Your task to perform on an android device: Open the Play Movies app and select the watchlist tab. Image 0: 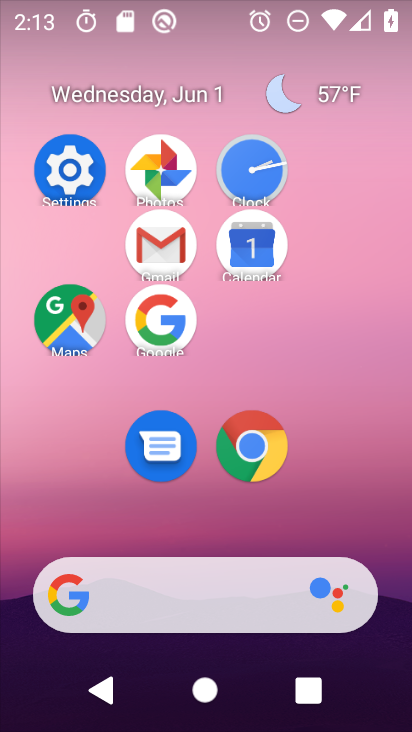
Step 0: click (152, 266)
Your task to perform on an android device: Open the Play Movies app and select the watchlist tab. Image 1: 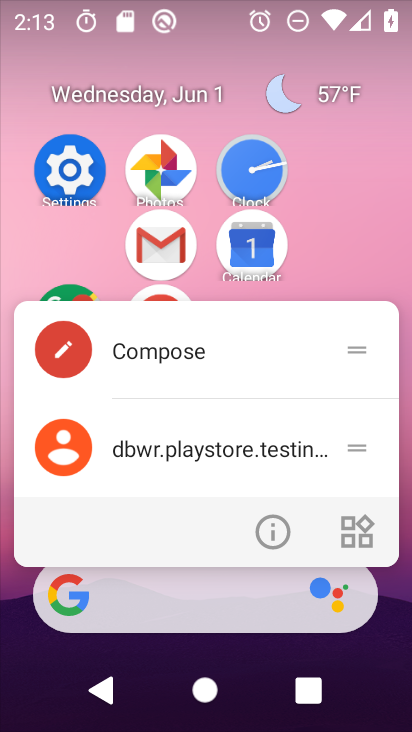
Step 1: click (394, 192)
Your task to perform on an android device: Open the Play Movies app and select the watchlist tab. Image 2: 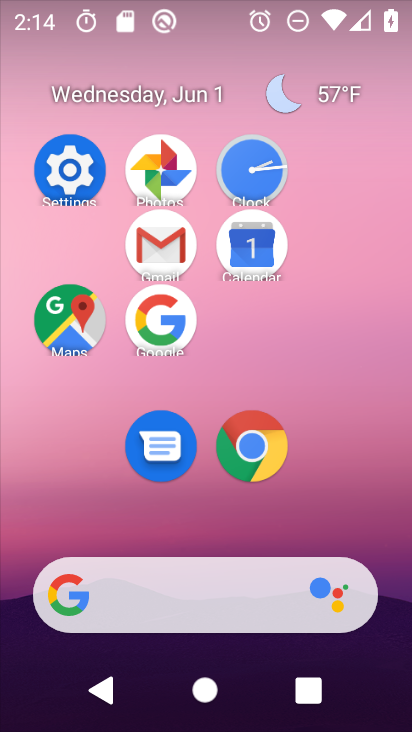
Step 2: drag from (349, 510) to (344, 132)
Your task to perform on an android device: Open the Play Movies app and select the watchlist tab. Image 3: 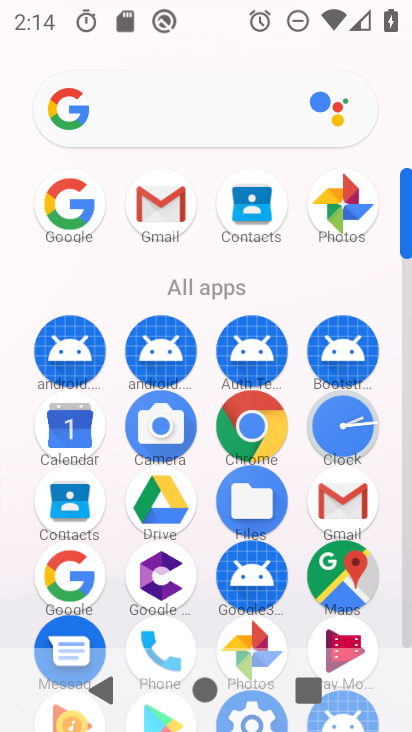
Step 3: drag from (324, 575) to (288, 171)
Your task to perform on an android device: Open the Play Movies app and select the watchlist tab. Image 4: 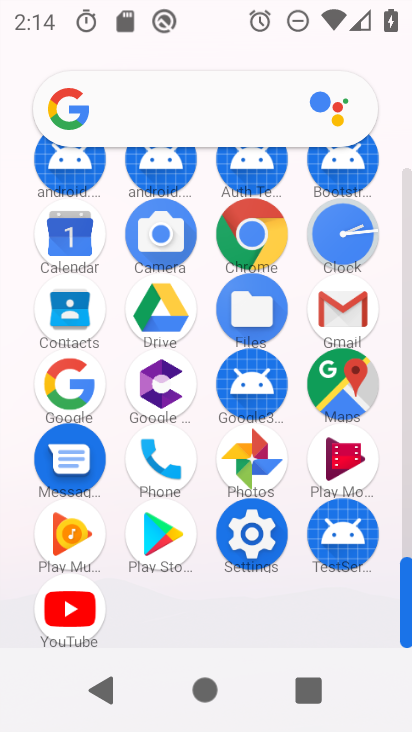
Step 4: click (345, 450)
Your task to perform on an android device: Open the Play Movies app and select the watchlist tab. Image 5: 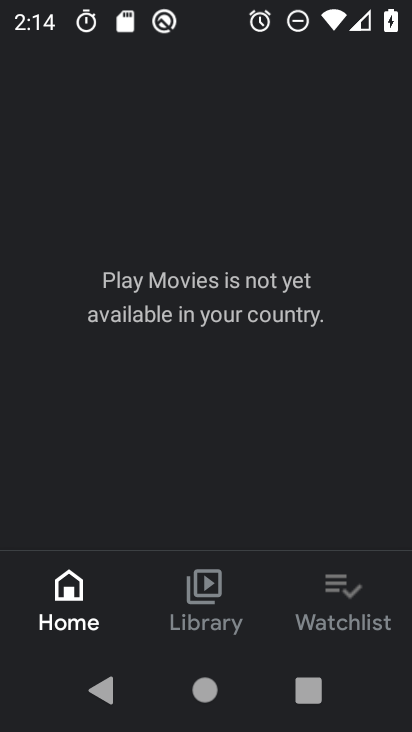
Step 5: task complete